Your task to perform on an android device: manage bookmarks in the chrome app Image 0: 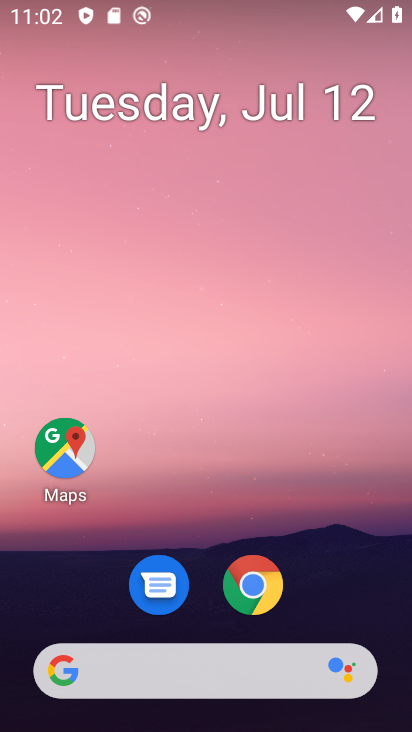
Step 0: click (265, 592)
Your task to perform on an android device: manage bookmarks in the chrome app Image 1: 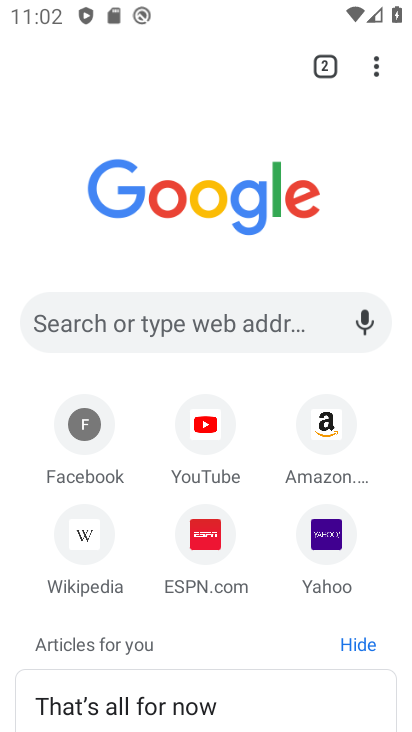
Step 1: click (378, 64)
Your task to perform on an android device: manage bookmarks in the chrome app Image 2: 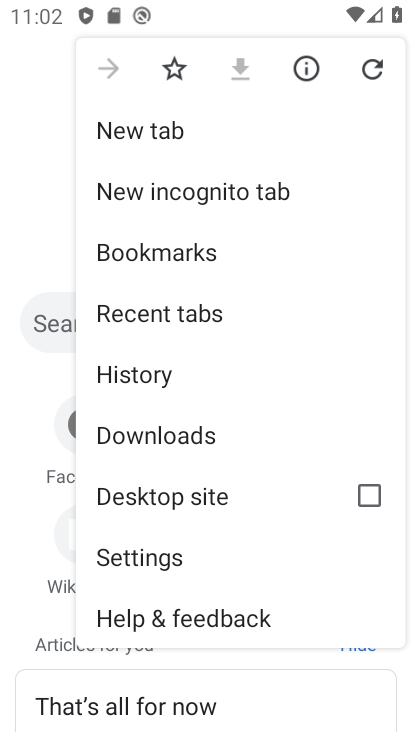
Step 2: click (209, 251)
Your task to perform on an android device: manage bookmarks in the chrome app Image 3: 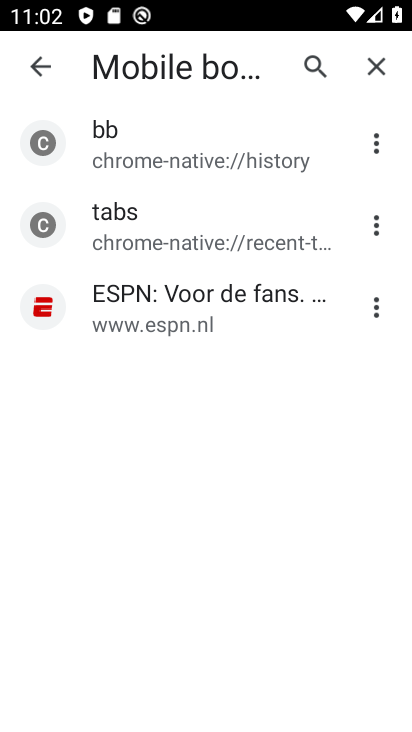
Step 3: click (374, 149)
Your task to perform on an android device: manage bookmarks in the chrome app Image 4: 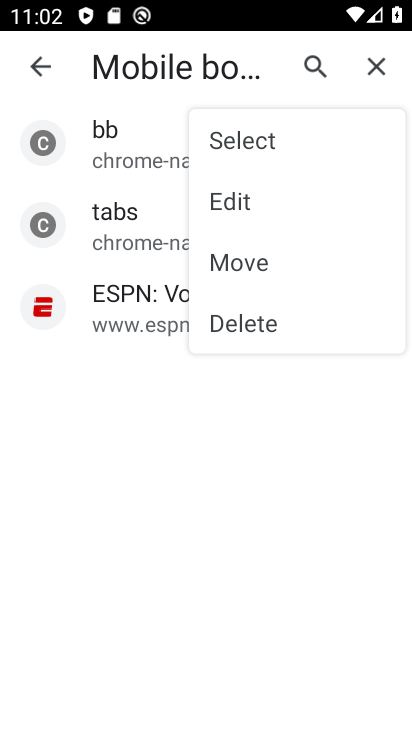
Step 4: click (283, 202)
Your task to perform on an android device: manage bookmarks in the chrome app Image 5: 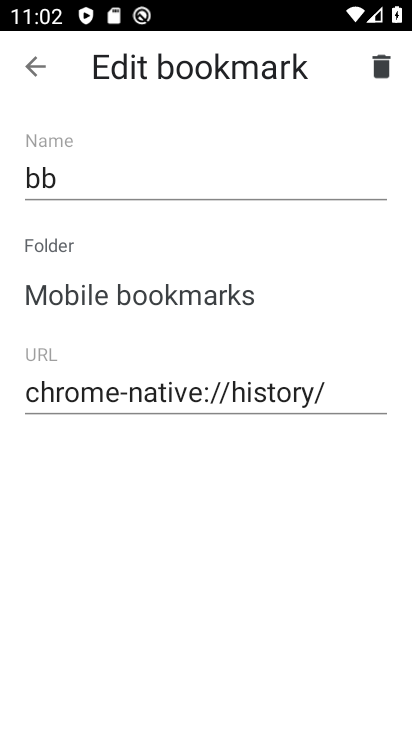
Step 5: click (37, 61)
Your task to perform on an android device: manage bookmarks in the chrome app Image 6: 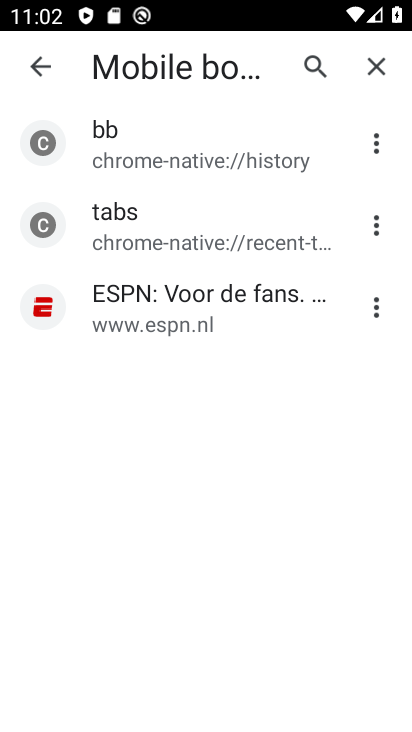
Step 6: task complete